Your task to perform on an android device: add a contact in the contacts app Image 0: 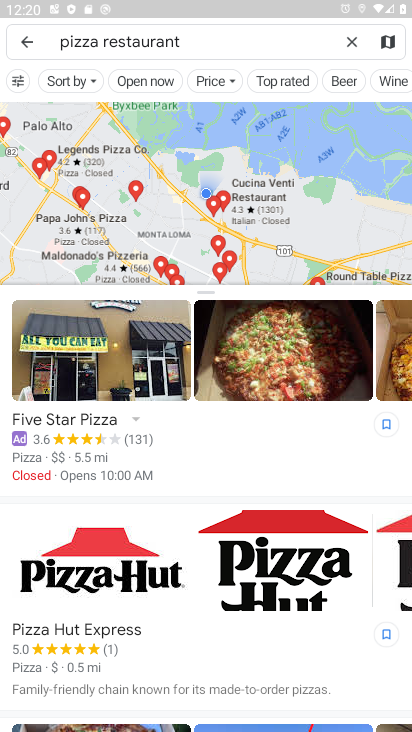
Step 0: press home button
Your task to perform on an android device: add a contact in the contacts app Image 1: 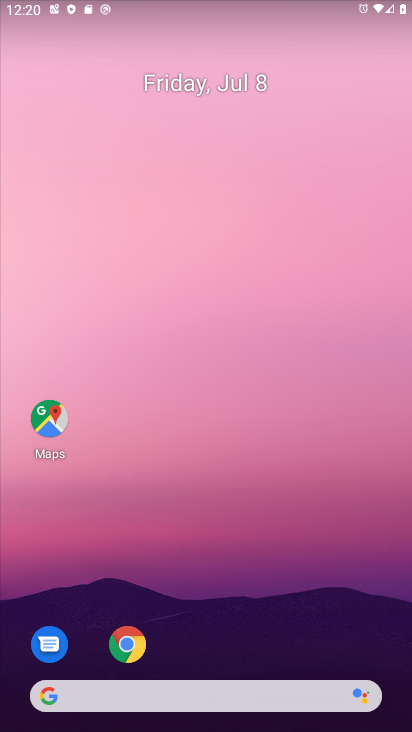
Step 1: drag from (237, 624) to (255, 42)
Your task to perform on an android device: add a contact in the contacts app Image 2: 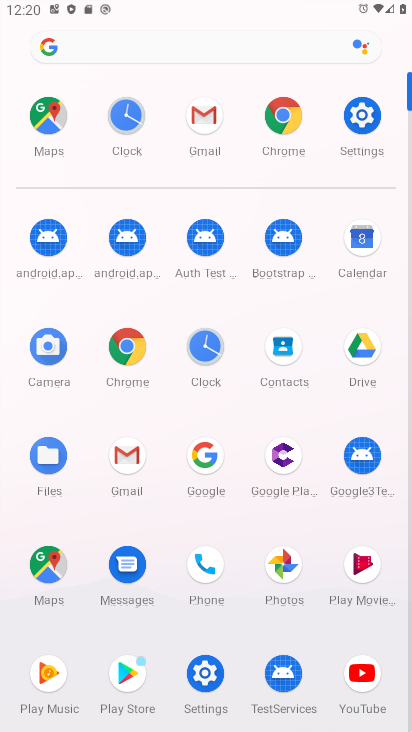
Step 2: click (276, 357)
Your task to perform on an android device: add a contact in the contacts app Image 3: 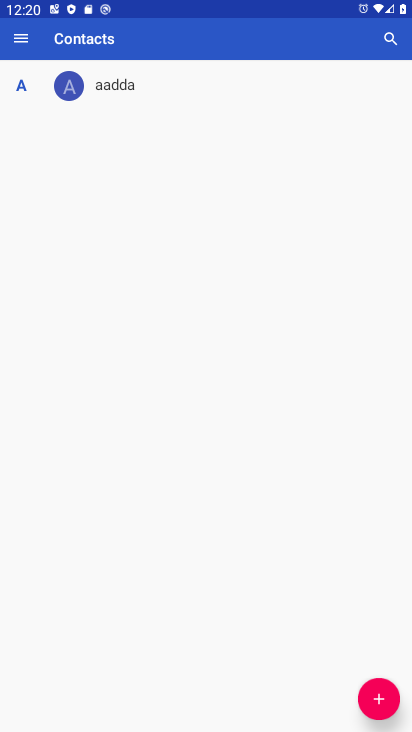
Step 3: click (388, 701)
Your task to perform on an android device: add a contact in the contacts app Image 4: 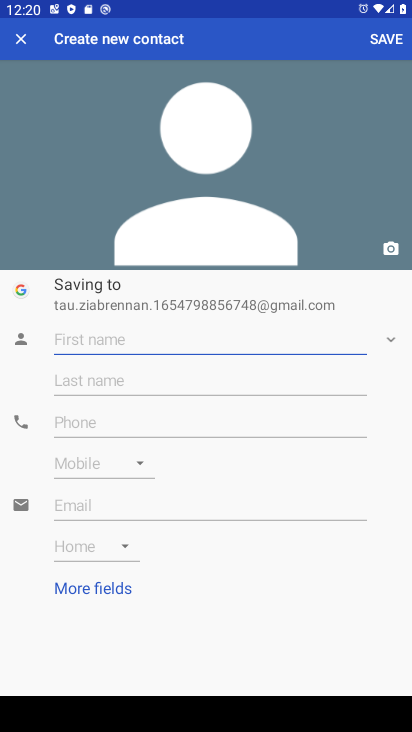
Step 4: type "blur"
Your task to perform on an android device: add a contact in the contacts app Image 5: 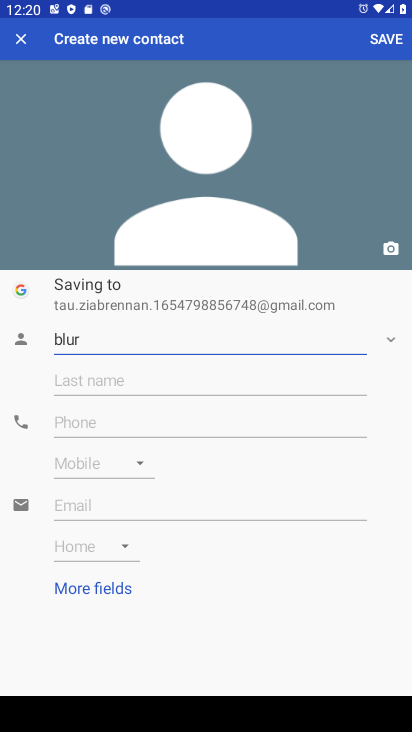
Step 5: click (391, 34)
Your task to perform on an android device: add a contact in the contacts app Image 6: 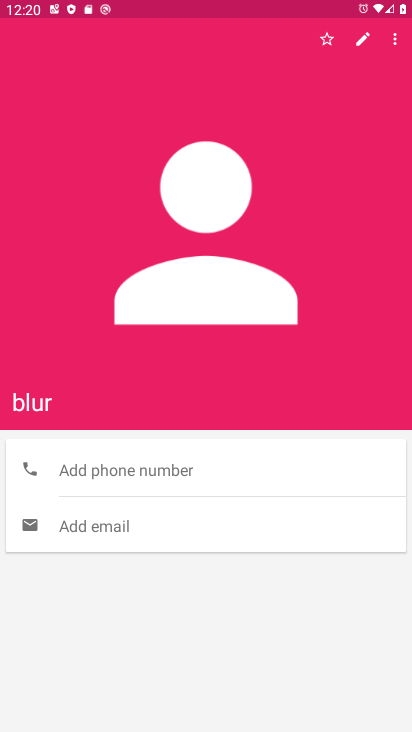
Step 6: task complete